Your task to perform on an android device: turn off improve location accuracy Image 0: 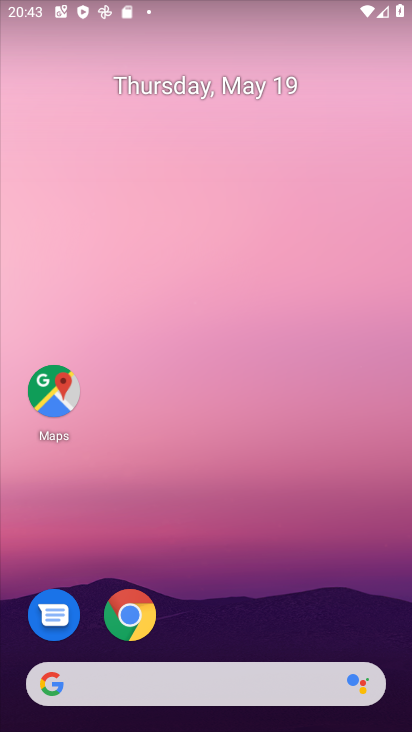
Step 0: drag from (221, 605) to (165, 59)
Your task to perform on an android device: turn off improve location accuracy Image 1: 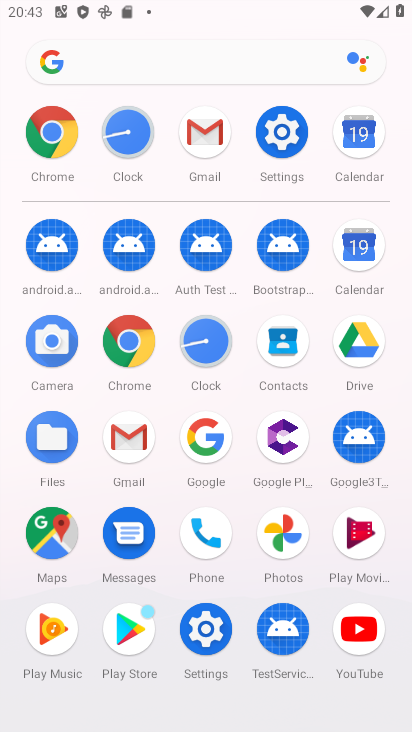
Step 1: click (284, 131)
Your task to perform on an android device: turn off improve location accuracy Image 2: 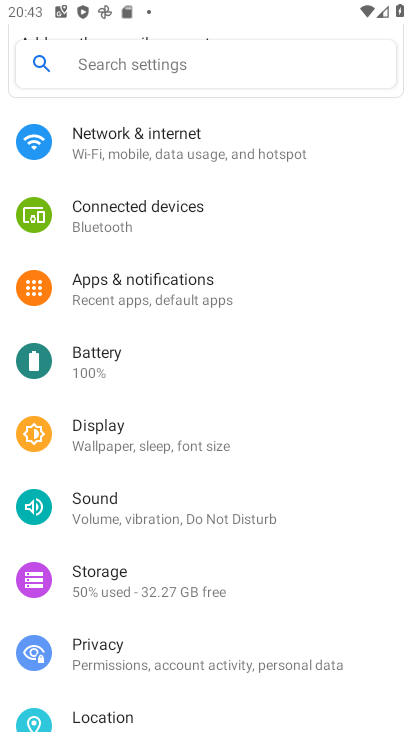
Step 2: drag from (220, 480) to (227, 215)
Your task to perform on an android device: turn off improve location accuracy Image 3: 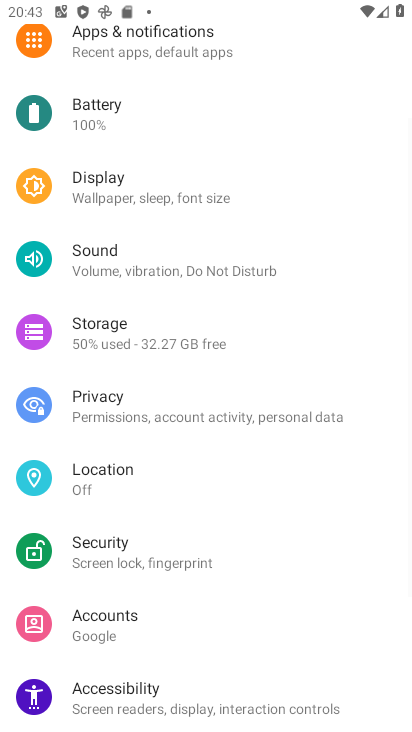
Step 3: click (122, 488)
Your task to perform on an android device: turn off improve location accuracy Image 4: 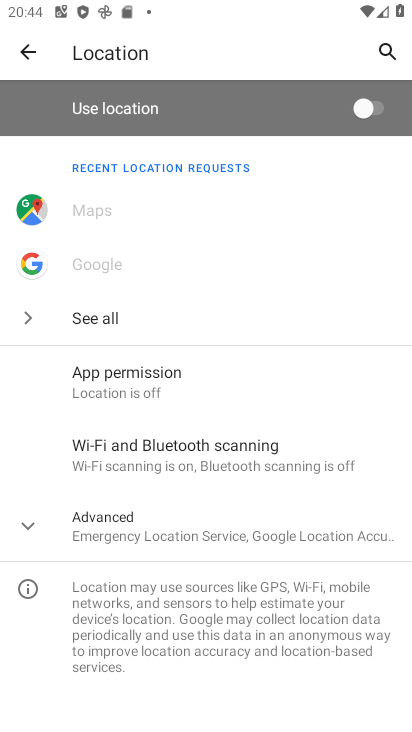
Step 4: click (68, 530)
Your task to perform on an android device: turn off improve location accuracy Image 5: 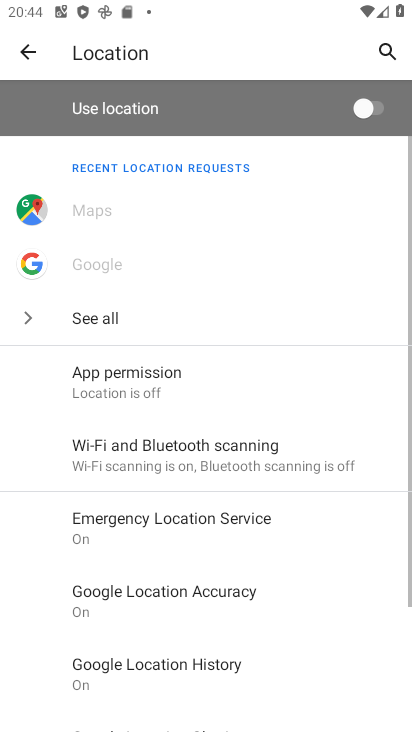
Step 5: drag from (230, 595) to (240, 409)
Your task to perform on an android device: turn off improve location accuracy Image 6: 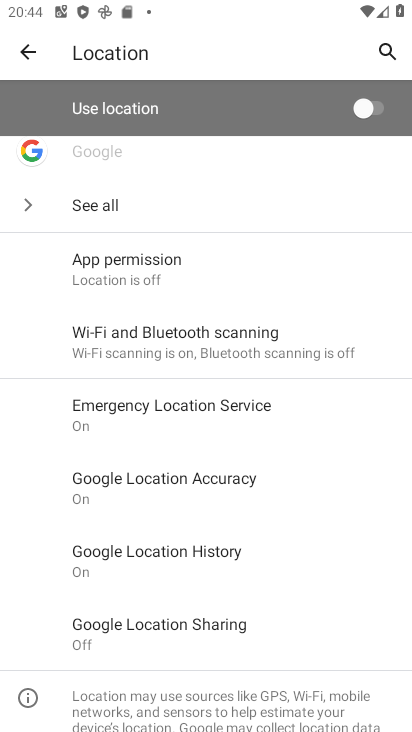
Step 6: click (174, 479)
Your task to perform on an android device: turn off improve location accuracy Image 7: 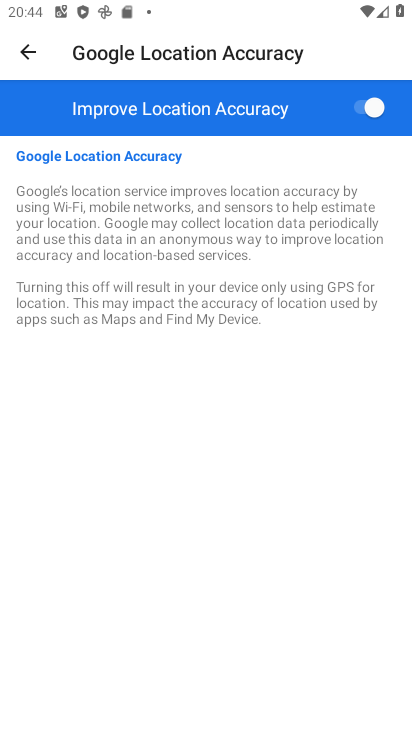
Step 7: click (372, 110)
Your task to perform on an android device: turn off improve location accuracy Image 8: 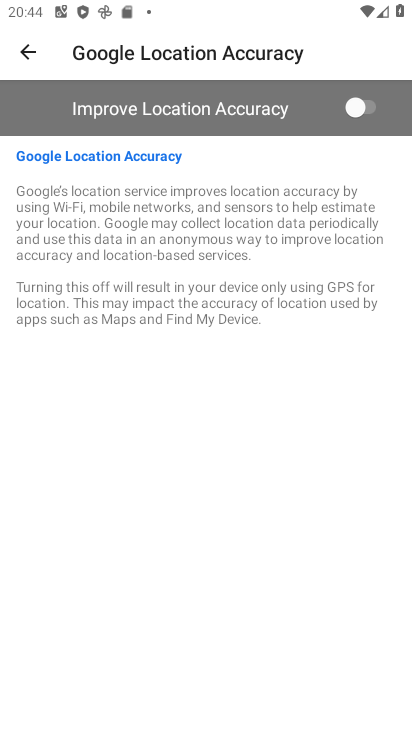
Step 8: task complete